Your task to perform on an android device: Open the map Image 0: 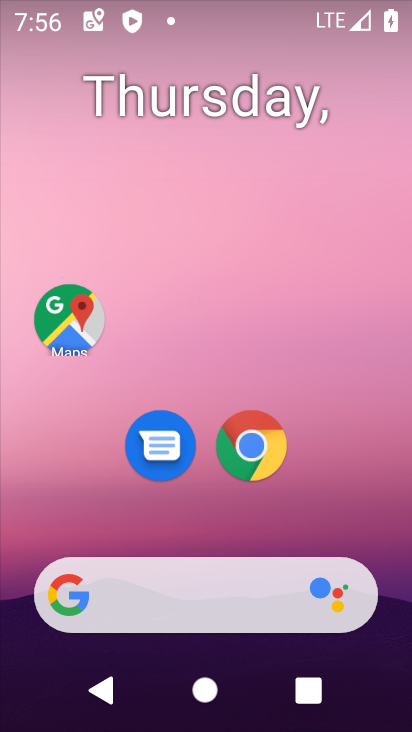
Step 0: drag from (207, 545) to (251, 91)
Your task to perform on an android device: Open the map Image 1: 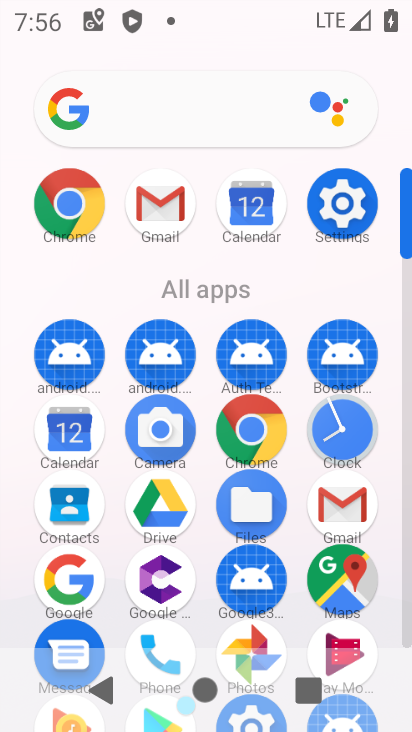
Step 1: drag from (208, 627) to (210, 259)
Your task to perform on an android device: Open the map Image 2: 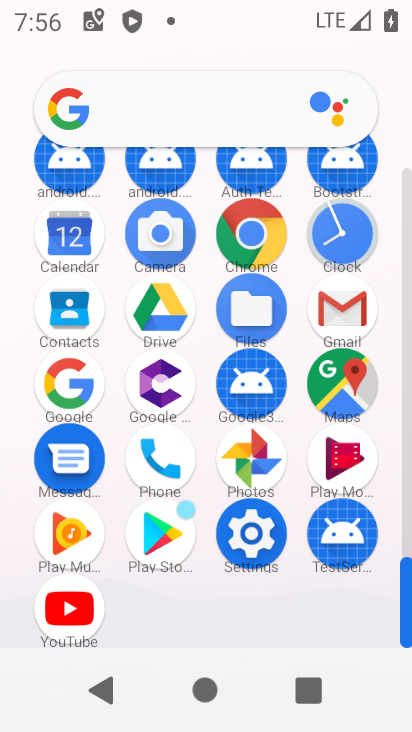
Step 2: click (340, 384)
Your task to perform on an android device: Open the map Image 3: 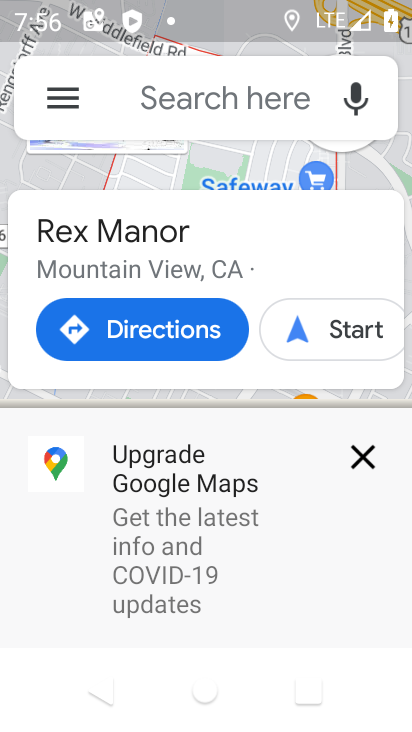
Step 3: drag from (233, 413) to (281, 86)
Your task to perform on an android device: Open the map Image 4: 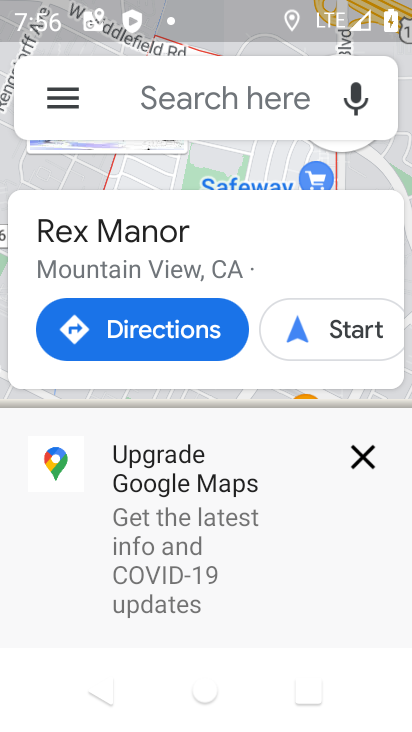
Step 4: click (360, 449)
Your task to perform on an android device: Open the map Image 5: 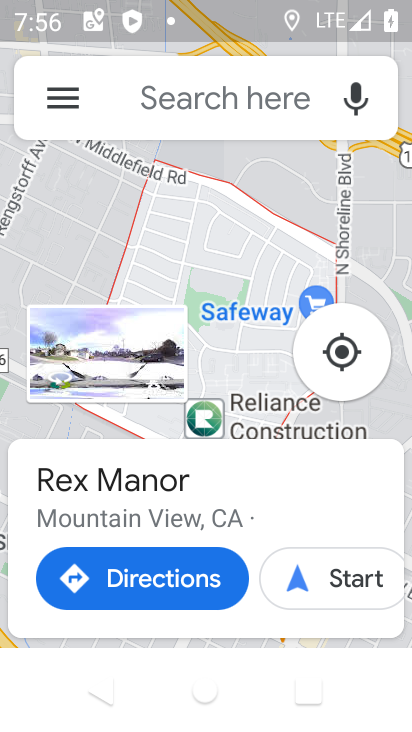
Step 5: task complete